Your task to perform on an android device: turn on bluetooth scan Image 0: 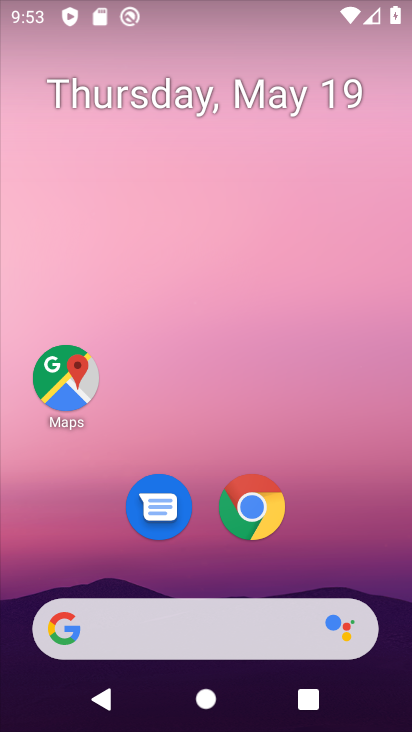
Step 0: drag from (388, 598) to (377, 246)
Your task to perform on an android device: turn on bluetooth scan Image 1: 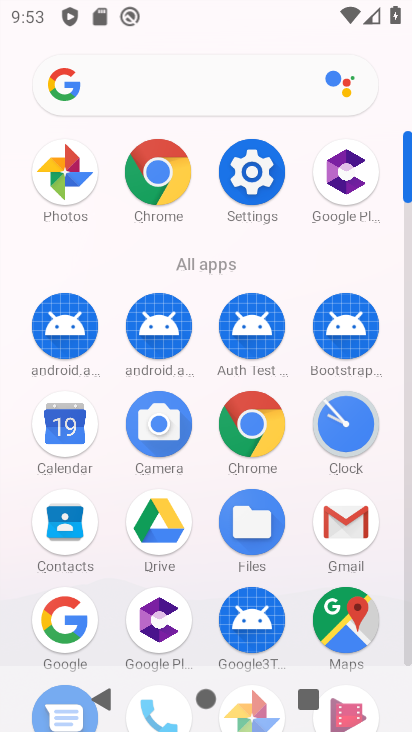
Step 1: click (253, 183)
Your task to perform on an android device: turn on bluetooth scan Image 2: 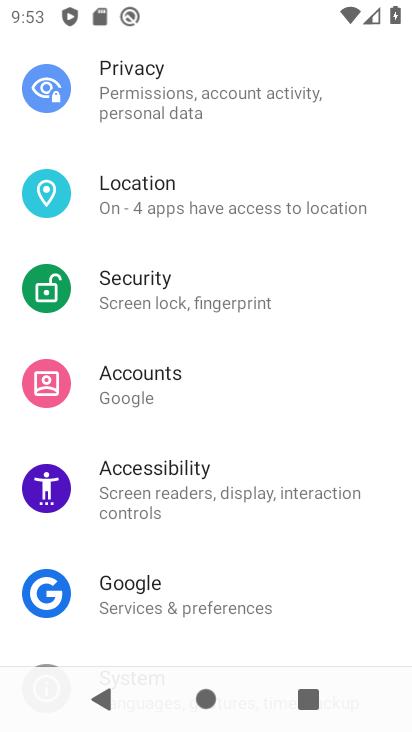
Step 2: drag from (337, 618) to (328, 325)
Your task to perform on an android device: turn on bluetooth scan Image 3: 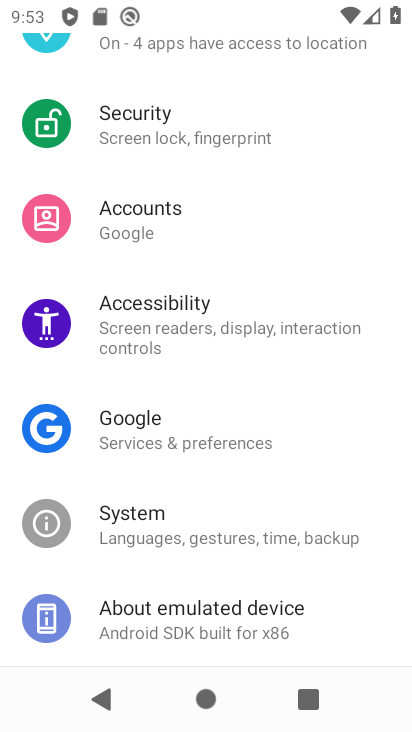
Step 3: drag from (299, 171) to (376, 497)
Your task to perform on an android device: turn on bluetooth scan Image 4: 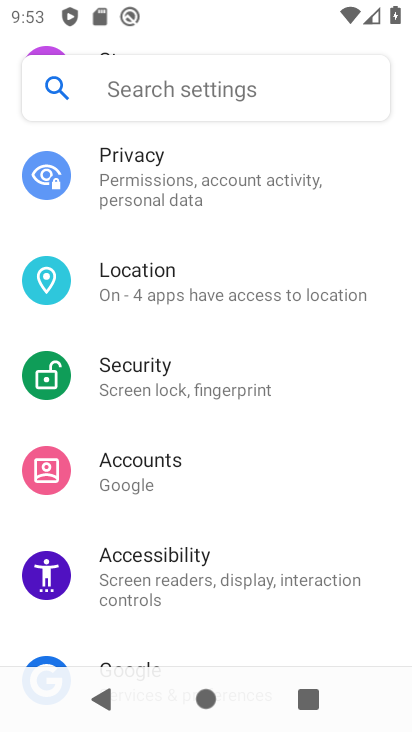
Step 4: click (183, 286)
Your task to perform on an android device: turn on bluetooth scan Image 5: 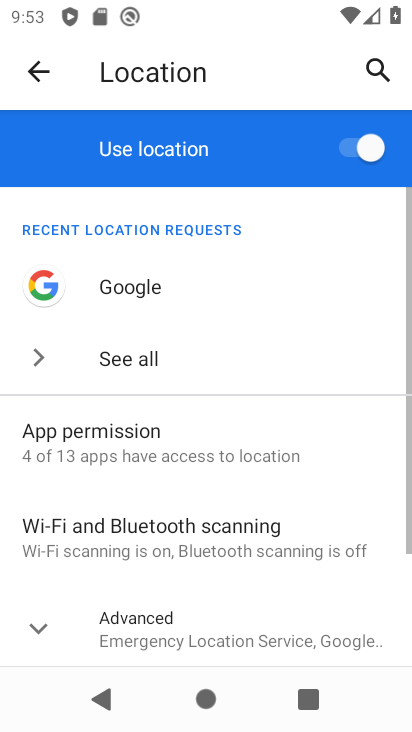
Step 5: click (51, 540)
Your task to perform on an android device: turn on bluetooth scan Image 6: 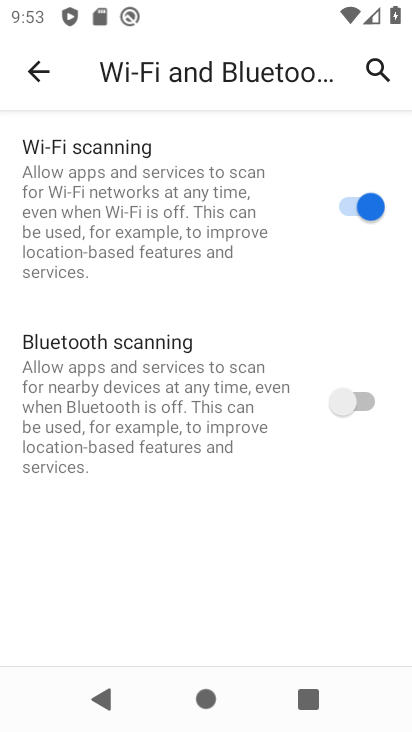
Step 6: click (370, 395)
Your task to perform on an android device: turn on bluetooth scan Image 7: 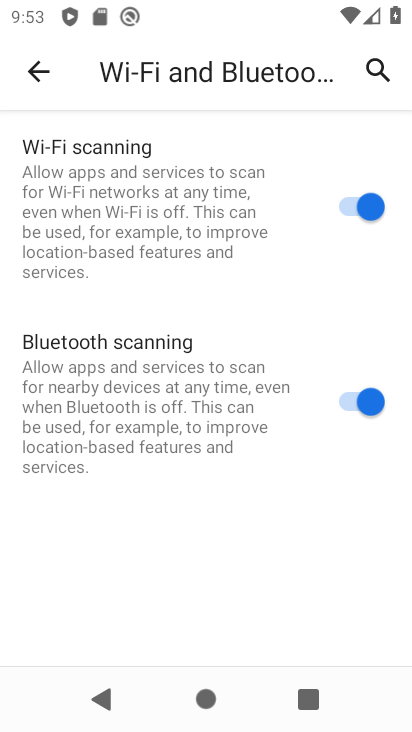
Step 7: task complete